Your task to perform on an android device: turn on wifi Image 0: 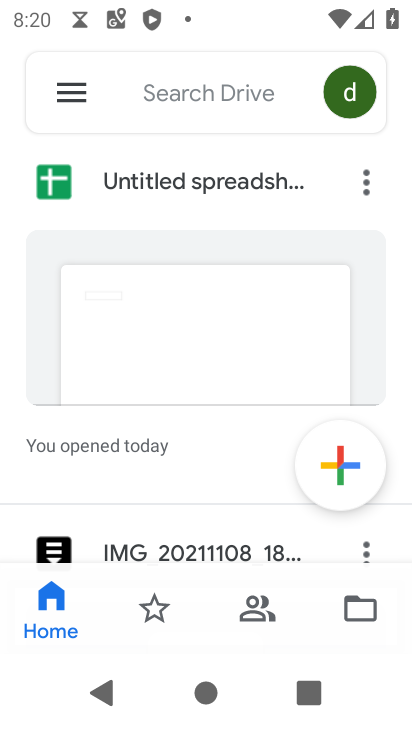
Step 0: press home button
Your task to perform on an android device: turn on wifi Image 1: 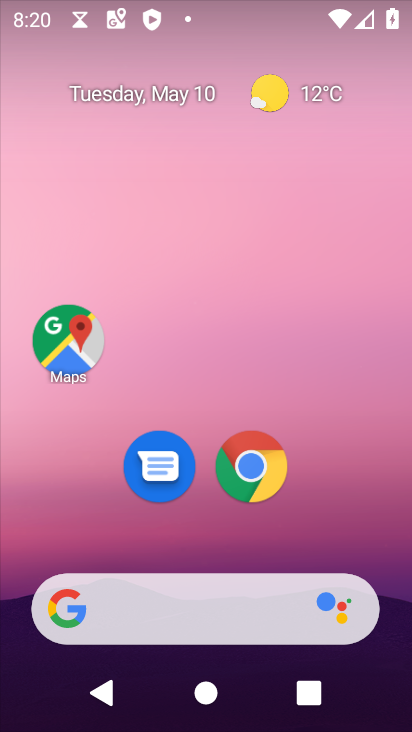
Step 1: drag from (222, 540) to (291, 9)
Your task to perform on an android device: turn on wifi Image 2: 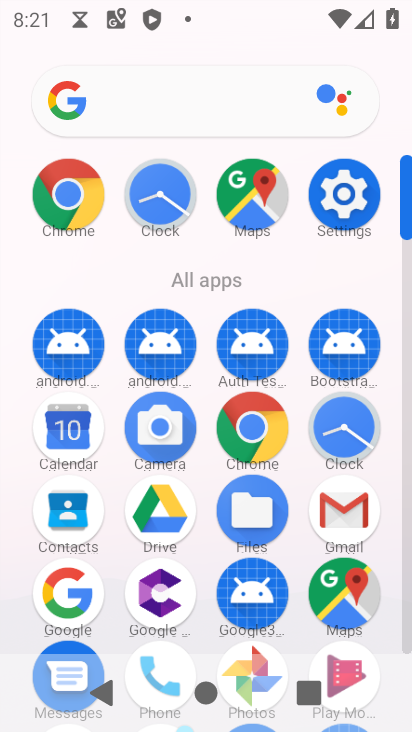
Step 2: click (351, 203)
Your task to perform on an android device: turn on wifi Image 3: 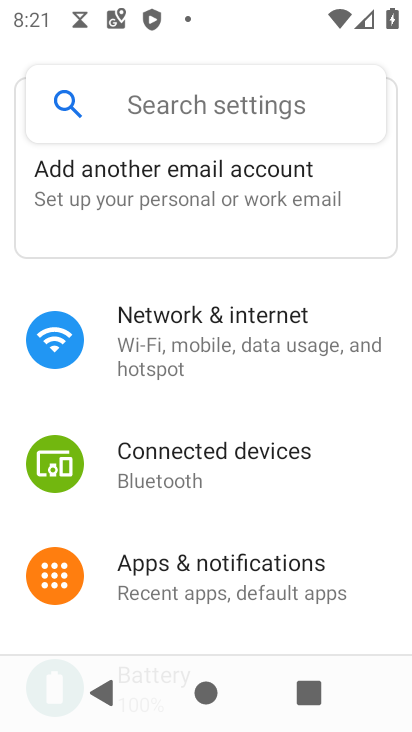
Step 3: click (216, 341)
Your task to perform on an android device: turn on wifi Image 4: 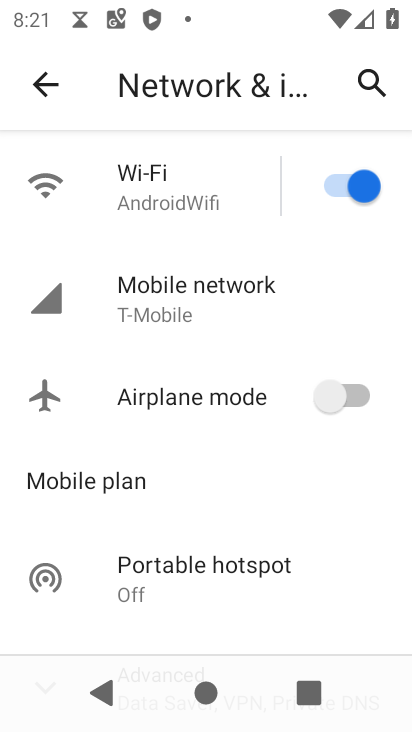
Step 4: task complete